Your task to perform on an android device: Open Google Maps and go to "Timeline" Image 0: 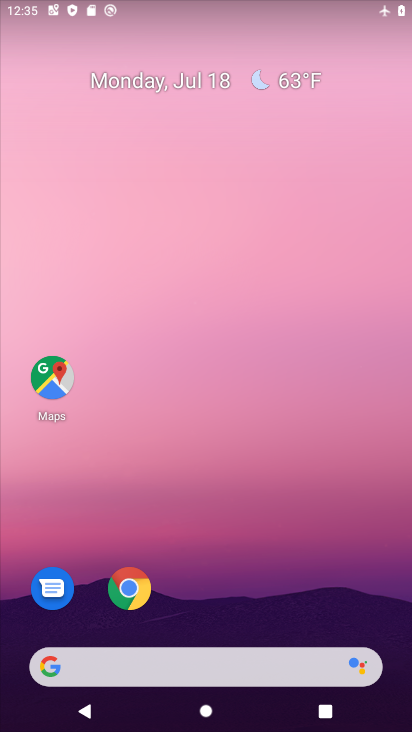
Step 0: drag from (245, 685) to (239, 151)
Your task to perform on an android device: Open Google Maps and go to "Timeline" Image 1: 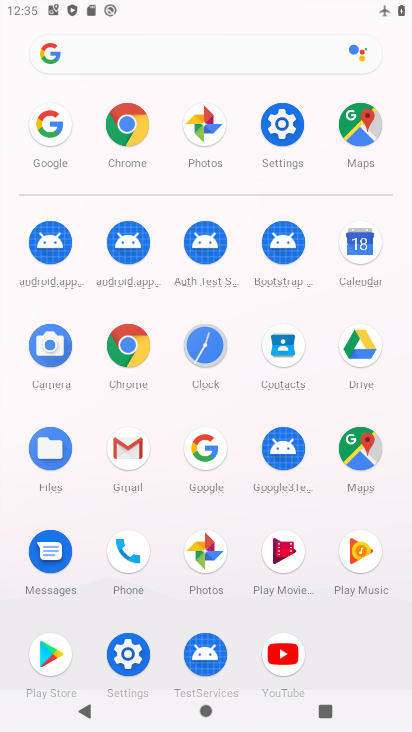
Step 1: click (363, 446)
Your task to perform on an android device: Open Google Maps and go to "Timeline" Image 2: 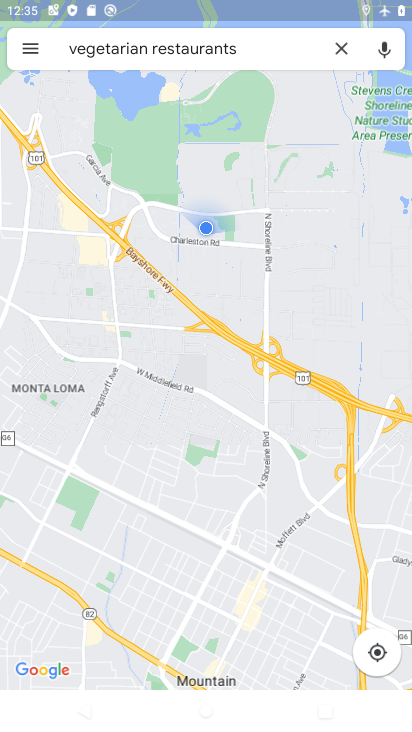
Step 2: click (29, 50)
Your task to perform on an android device: Open Google Maps and go to "Timeline" Image 3: 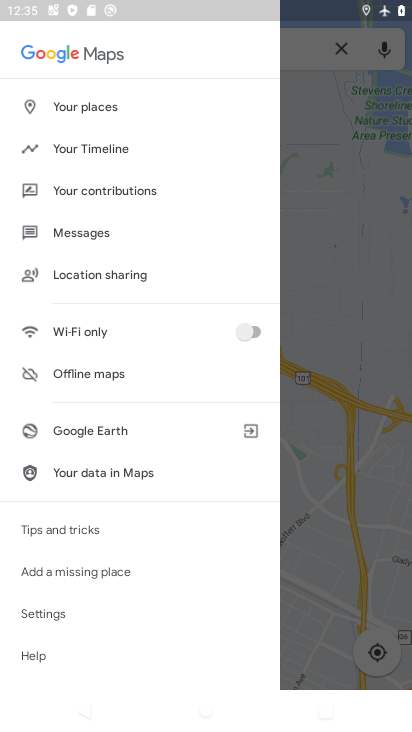
Step 3: click (93, 147)
Your task to perform on an android device: Open Google Maps and go to "Timeline" Image 4: 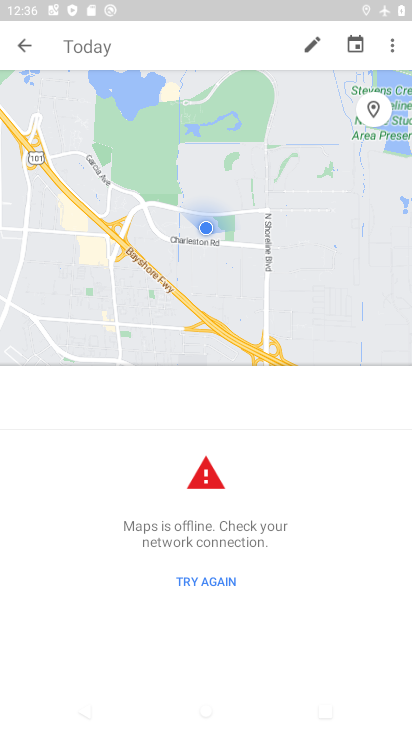
Step 4: task complete